Your task to perform on an android device: turn notification dots off Image 0: 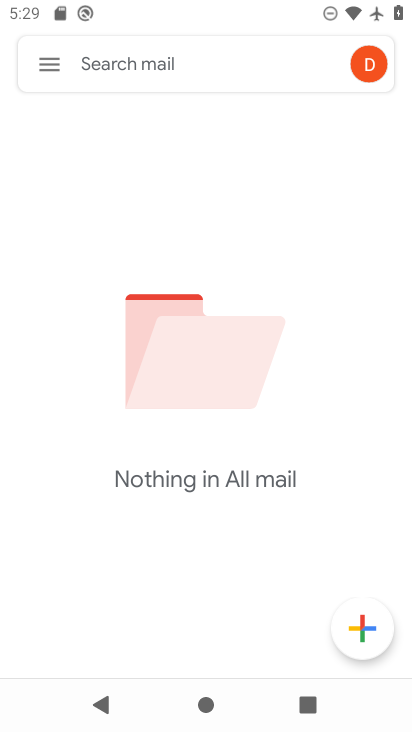
Step 0: press home button
Your task to perform on an android device: turn notification dots off Image 1: 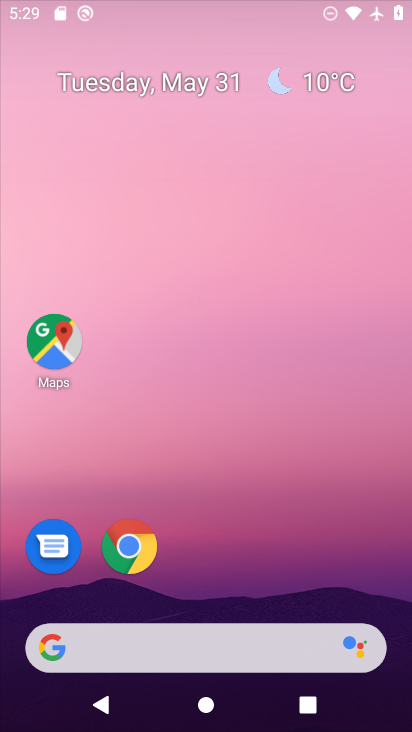
Step 1: drag from (240, 438) to (122, 8)
Your task to perform on an android device: turn notification dots off Image 2: 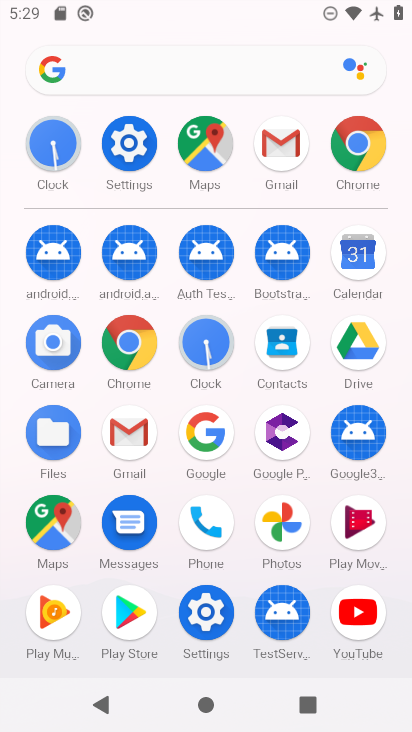
Step 2: click (137, 139)
Your task to perform on an android device: turn notification dots off Image 3: 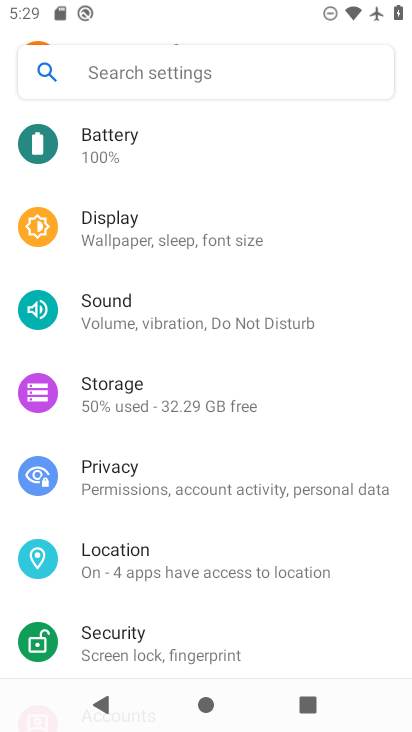
Step 3: drag from (182, 177) to (212, 694)
Your task to perform on an android device: turn notification dots off Image 4: 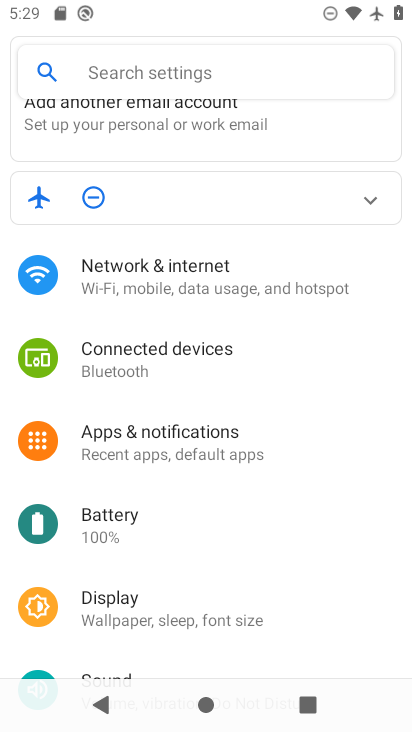
Step 4: click (218, 438)
Your task to perform on an android device: turn notification dots off Image 5: 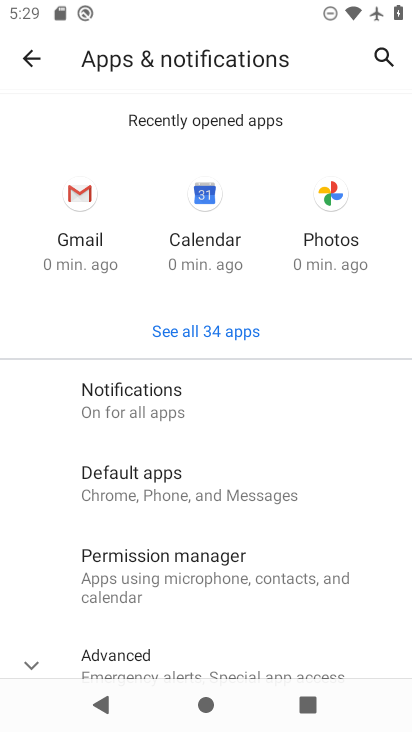
Step 5: click (196, 404)
Your task to perform on an android device: turn notification dots off Image 6: 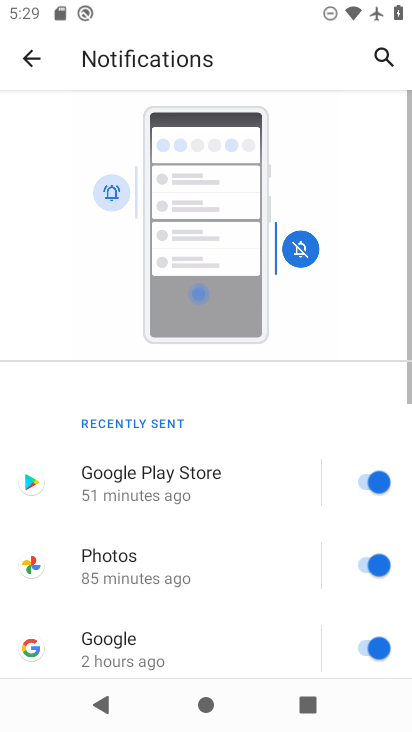
Step 6: drag from (216, 610) to (223, 0)
Your task to perform on an android device: turn notification dots off Image 7: 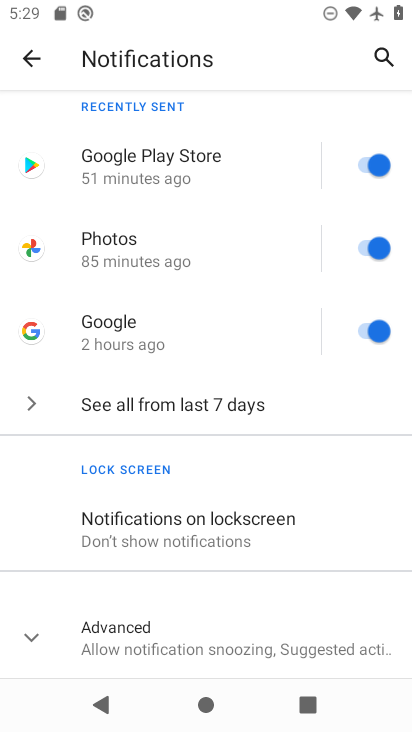
Step 7: click (199, 640)
Your task to perform on an android device: turn notification dots off Image 8: 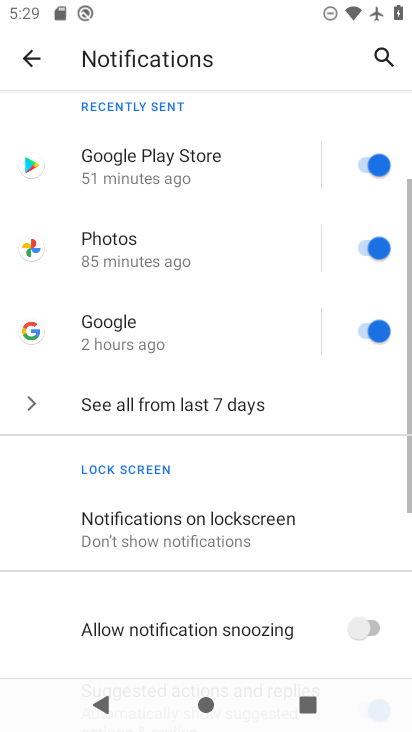
Step 8: task complete